Your task to perform on an android device: Show me productivity apps on the Play Store Image 0: 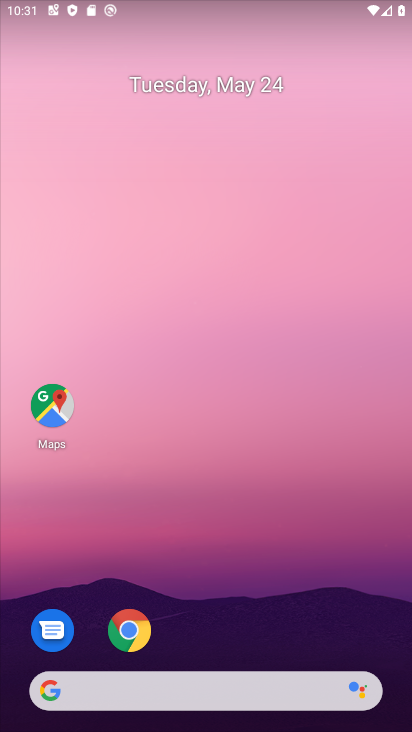
Step 0: press home button
Your task to perform on an android device: Show me productivity apps on the Play Store Image 1: 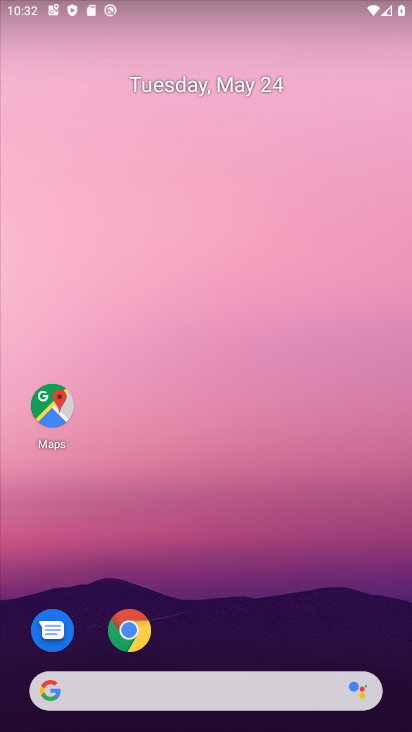
Step 1: drag from (193, 654) to (279, 55)
Your task to perform on an android device: Show me productivity apps on the Play Store Image 2: 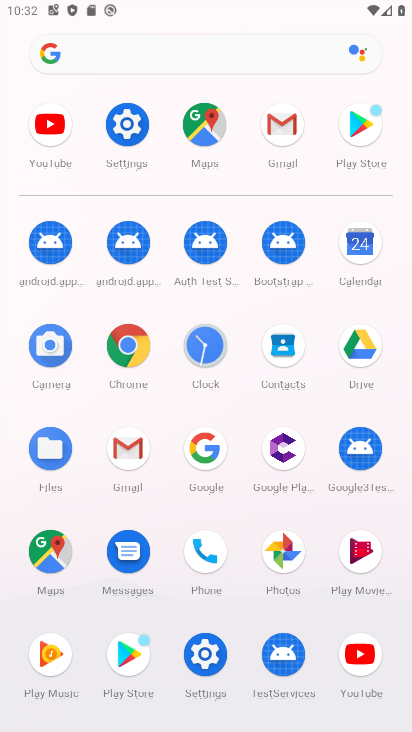
Step 2: click (121, 643)
Your task to perform on an android device: Show me productivity apps on the Play Store Image 3: 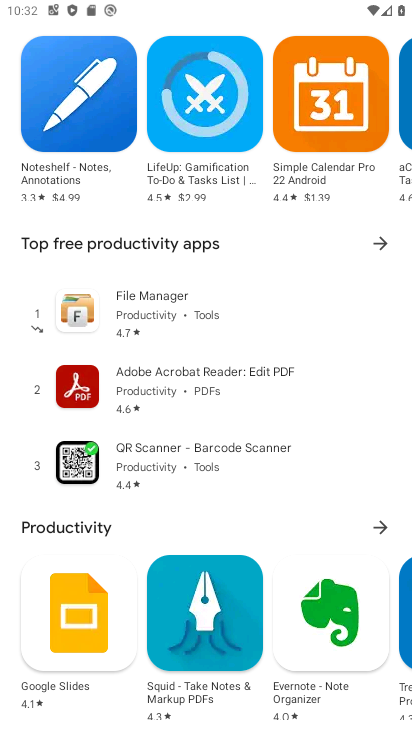
Step 3: task complete